Your task to perform on an android device: open a new tab in the chrome app Image 0: 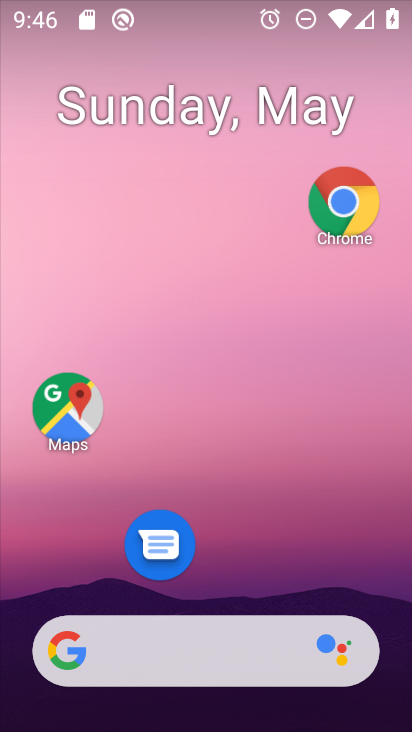
Step 0: click (345, 199)
Your task to perform on an android device: open a new tab in the chrome app Image 1: 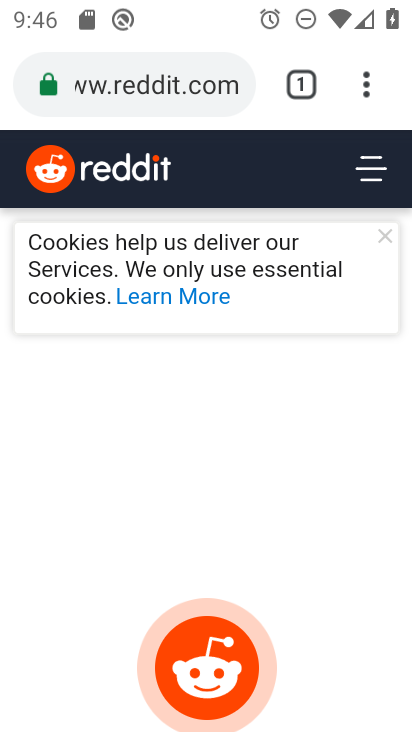
Step 1: click (363, 87)
Your task to perform on an android device: open a new tab in the chrome app Image 2: 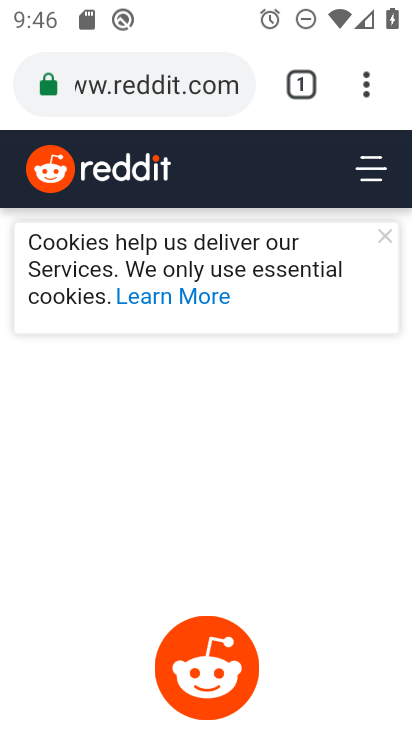
Step 2: click (371, 107)
Your task to perform on an android device: open a new tab in the chrome app Image 3: 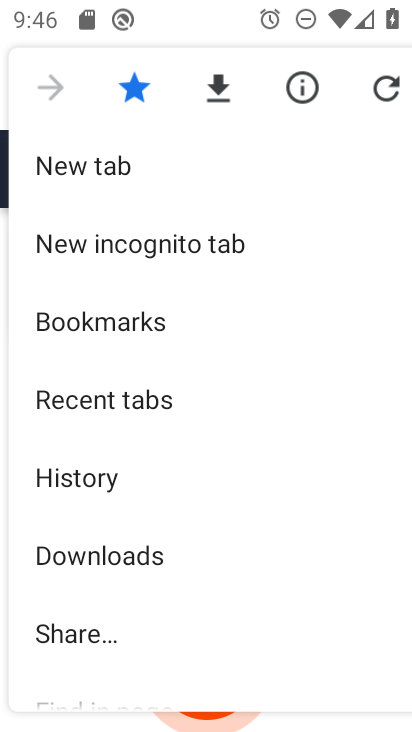
Step 3: click (107, 179)
Your task to perform on an android device: open a new tab in the chrome app Image 4: 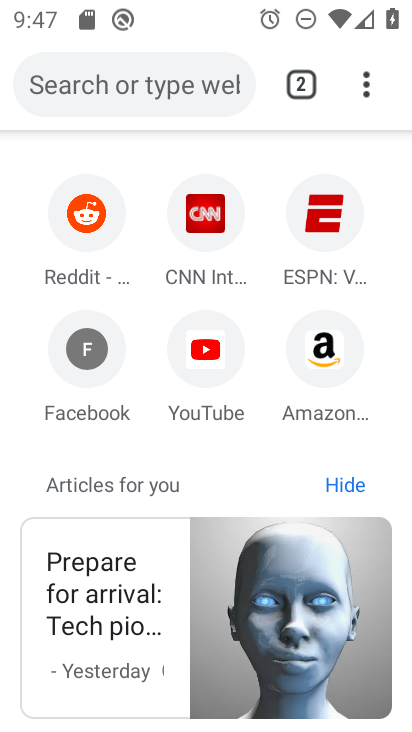
Step 4: task complete